Your task to perform on an android device: add a contact in the contacts app Image 0: 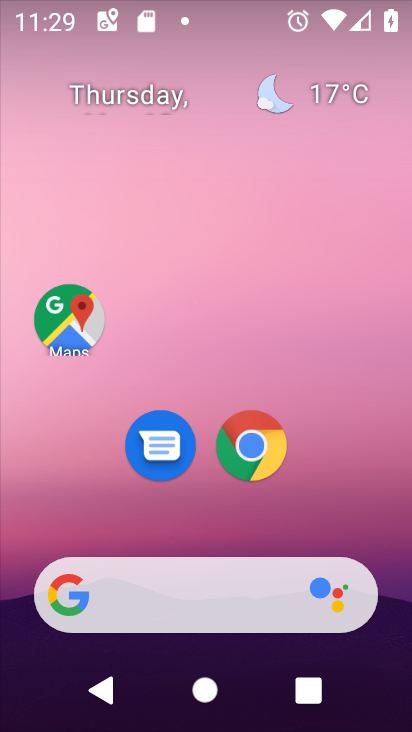
Step 0: drag from (203, 524) to (221, 134)
Your task to perform on an android device: add a contact in the contacts app Image 1: 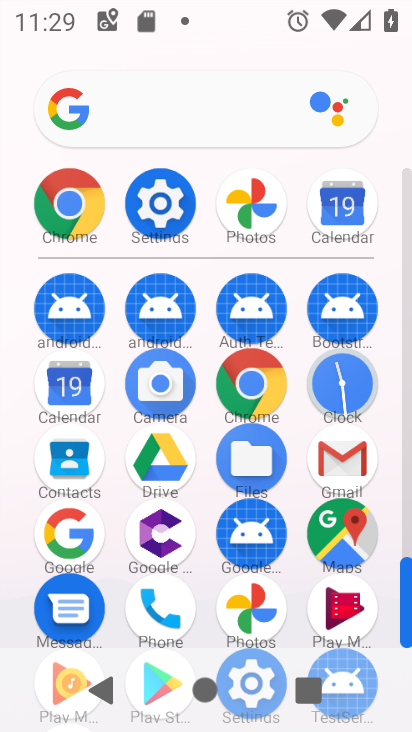
Step 1: click (82, 477)
Your task to perform on an android device: add a contact in the contacts app Image 2: 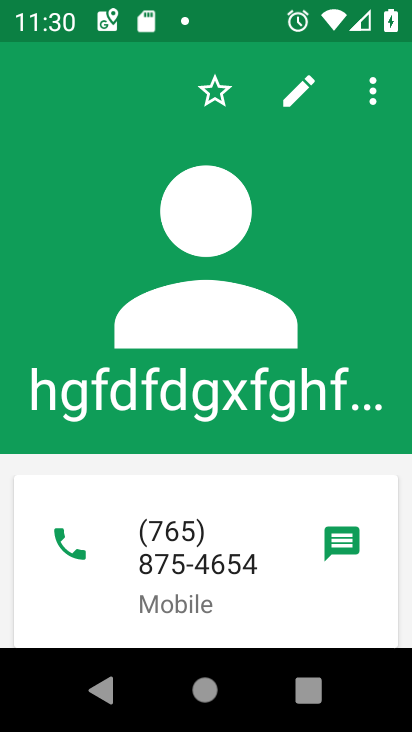
Step 2: click (104, 684)
Your task to perform on an android device: add a contact in the contacts app Image 3: 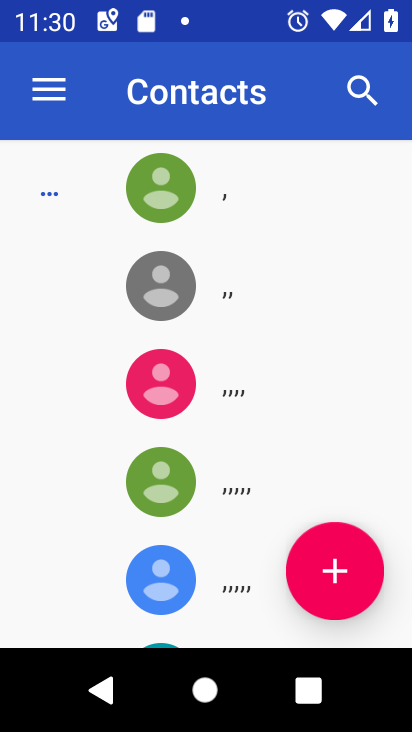
Step 3: click (367, 588)
Your task to perform on an android device: add a contact in the contacts app Image 4: 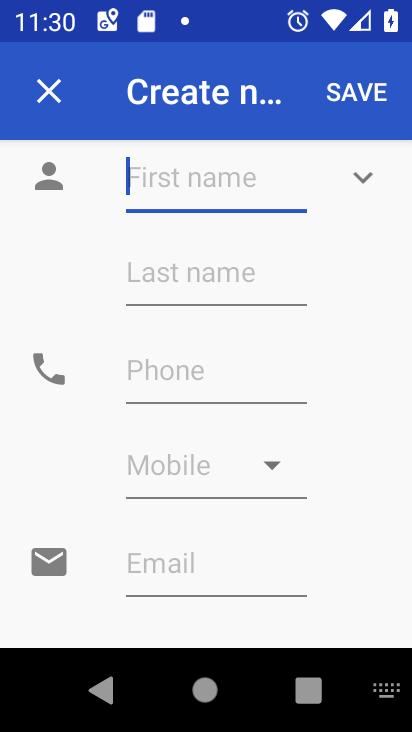
Step 4: type "i8u8jiuj"
Your task to perform on an android device: add a contact in the contacts app Image 5: 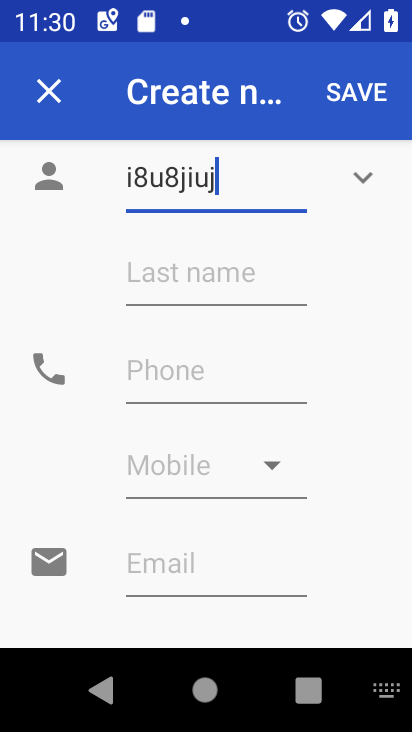
Step 5: type ""
Your task to perform on an android device: add a contact in the contacts app Image 6: 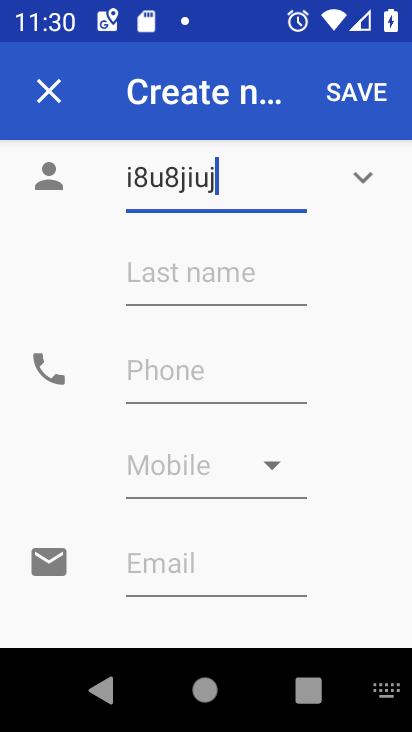
Step 6: task complete